Your task to perform on an android device: What is the recent news? Image 0: 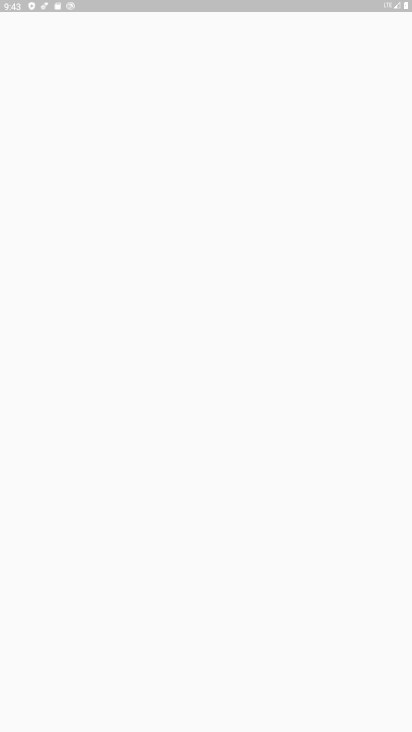
Step 0: press home button
Your task to perform on an android device: What is the recent news? Image 1: 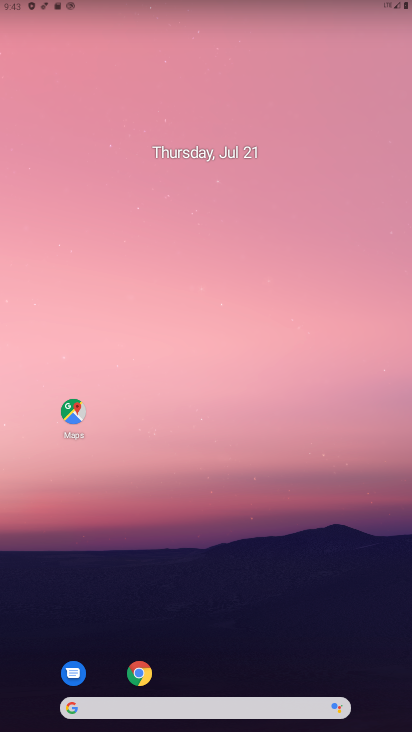
Step 1: task complete